Your task to perform on an android device: Open my contact list Image 0: 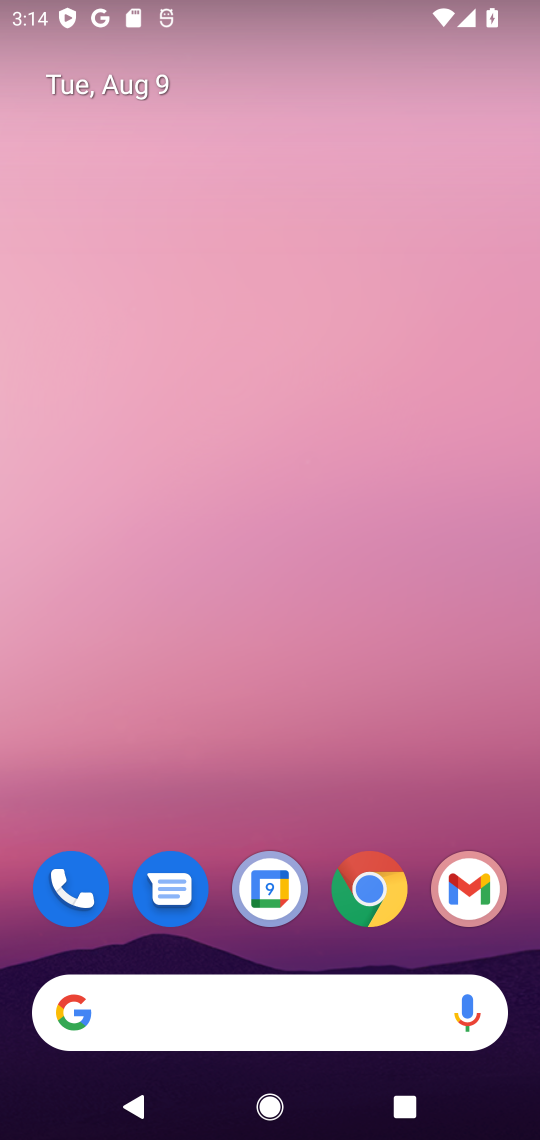
Step 0: drag from (307, 753) to (326, 0)
Your task to perform on an android device: Open my contact list Image 1: 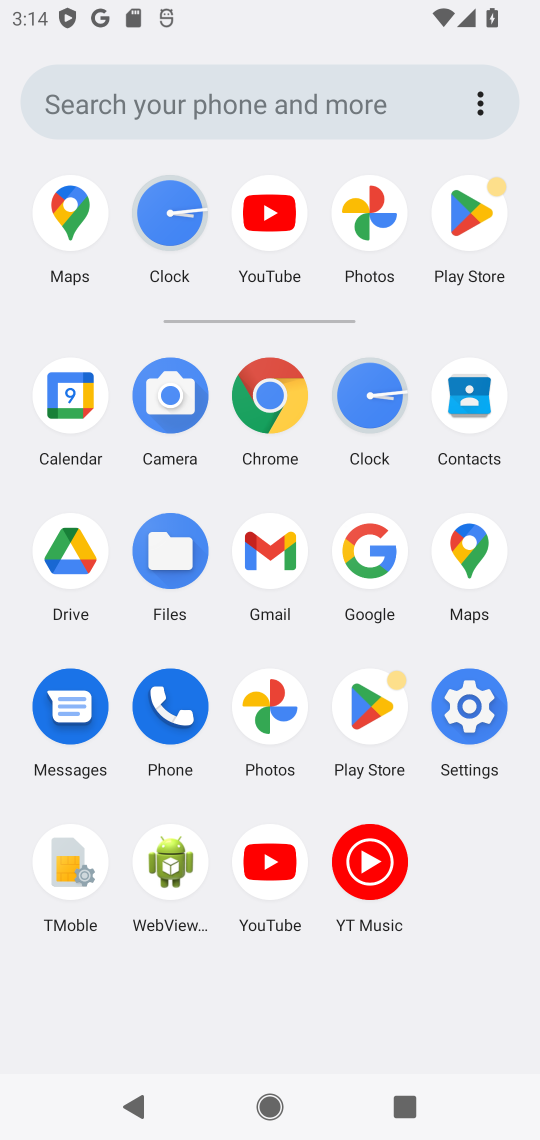
Step 1: click (478, 397)
Your task to perform on an android device: Open my contact list Image 2: 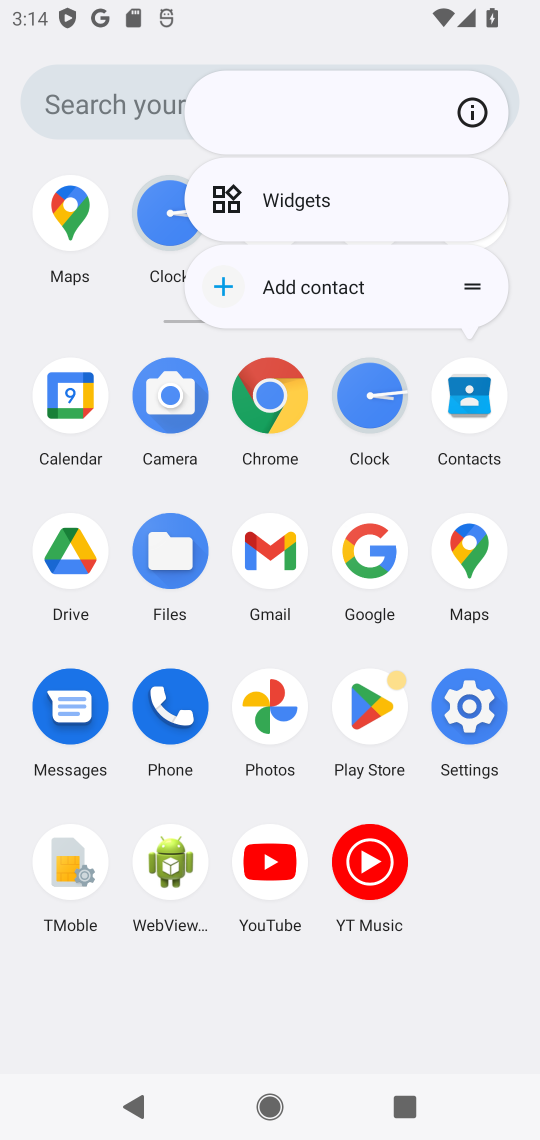
Step 2: click (478, 395)
Your task to perform on an android device: Open my contact list Image 3: 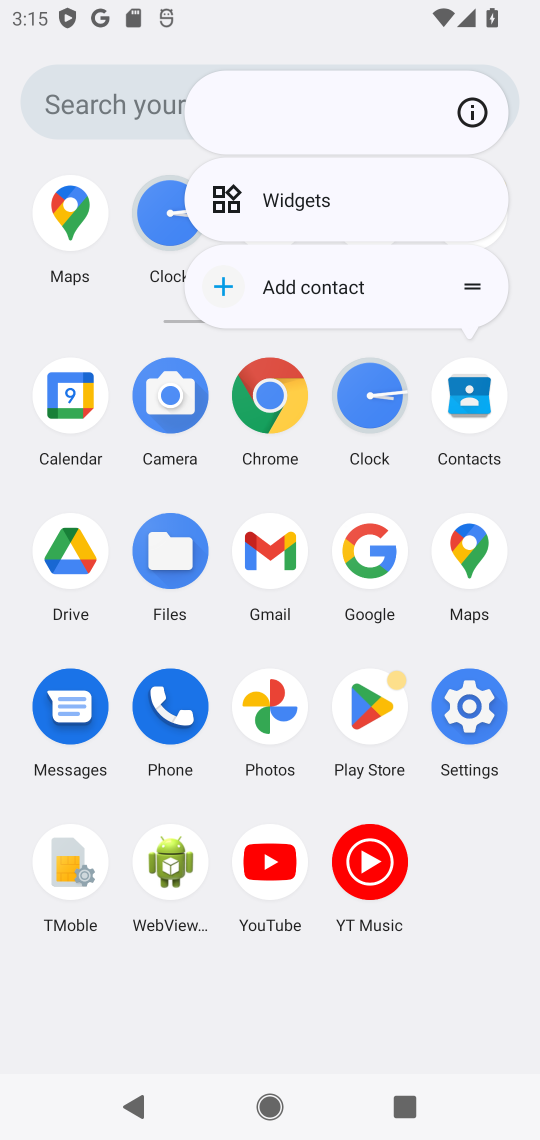
Step 3: click (478, 391)
Your task to perform on an android device: Open my contact list Image 4: 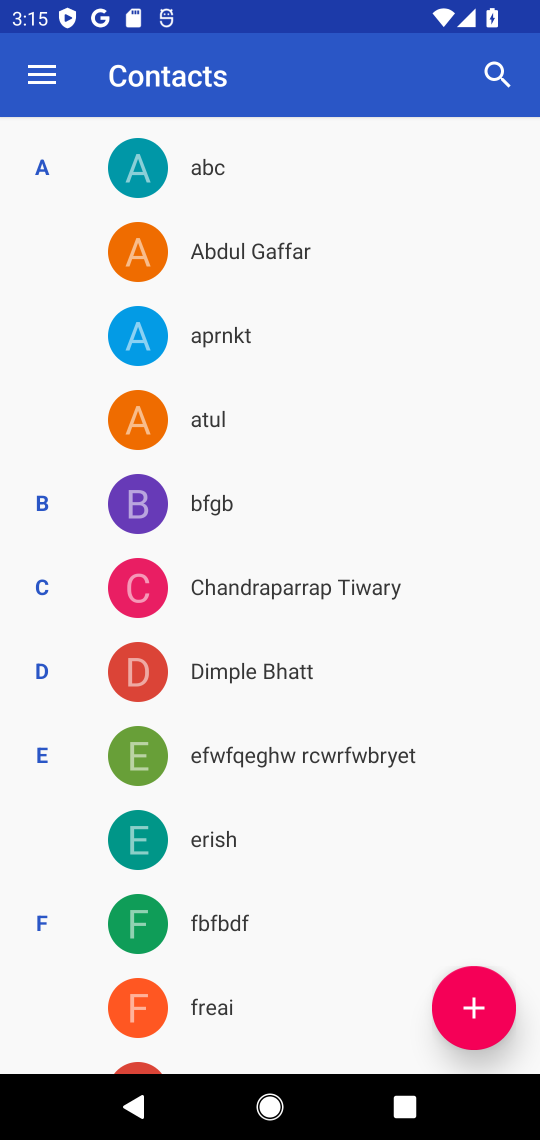
Step 4: task complete